Your task to perform on an android device: Search for hotels in San Francisco Image 0: 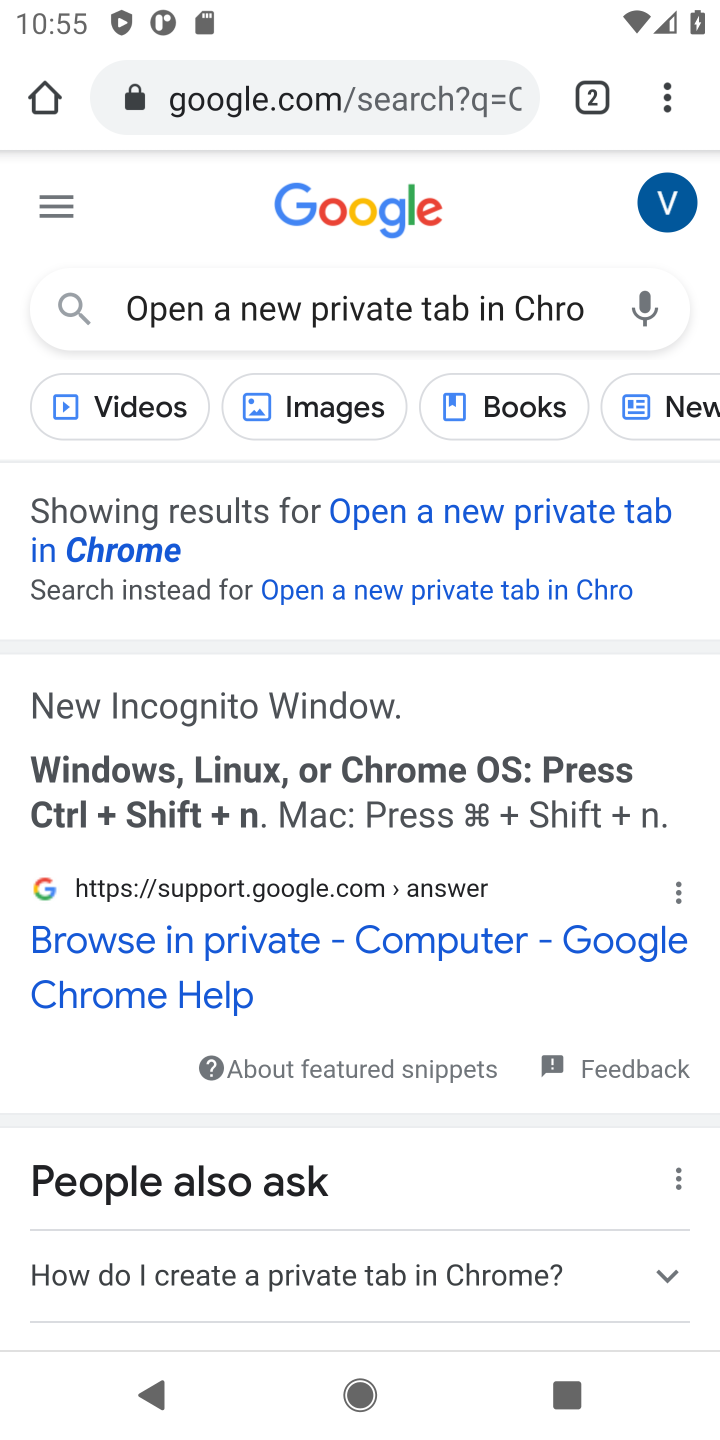
Step 0: click (298, 94)
Your task to perform on an android device: Search for hotels in San Francisco Image 1: 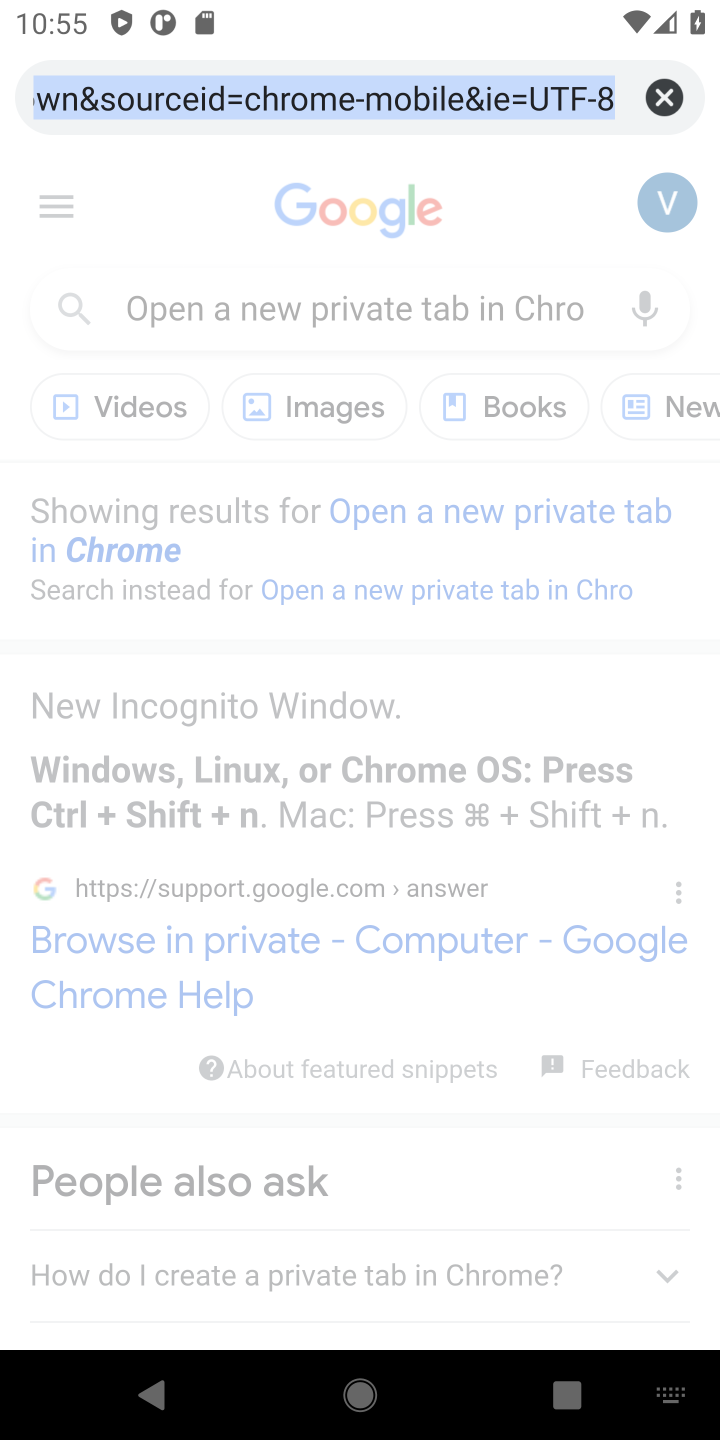
Step 1: click (671, 94)
Your task to perform on an android device: Search for hotels in San Francisco Image 2: 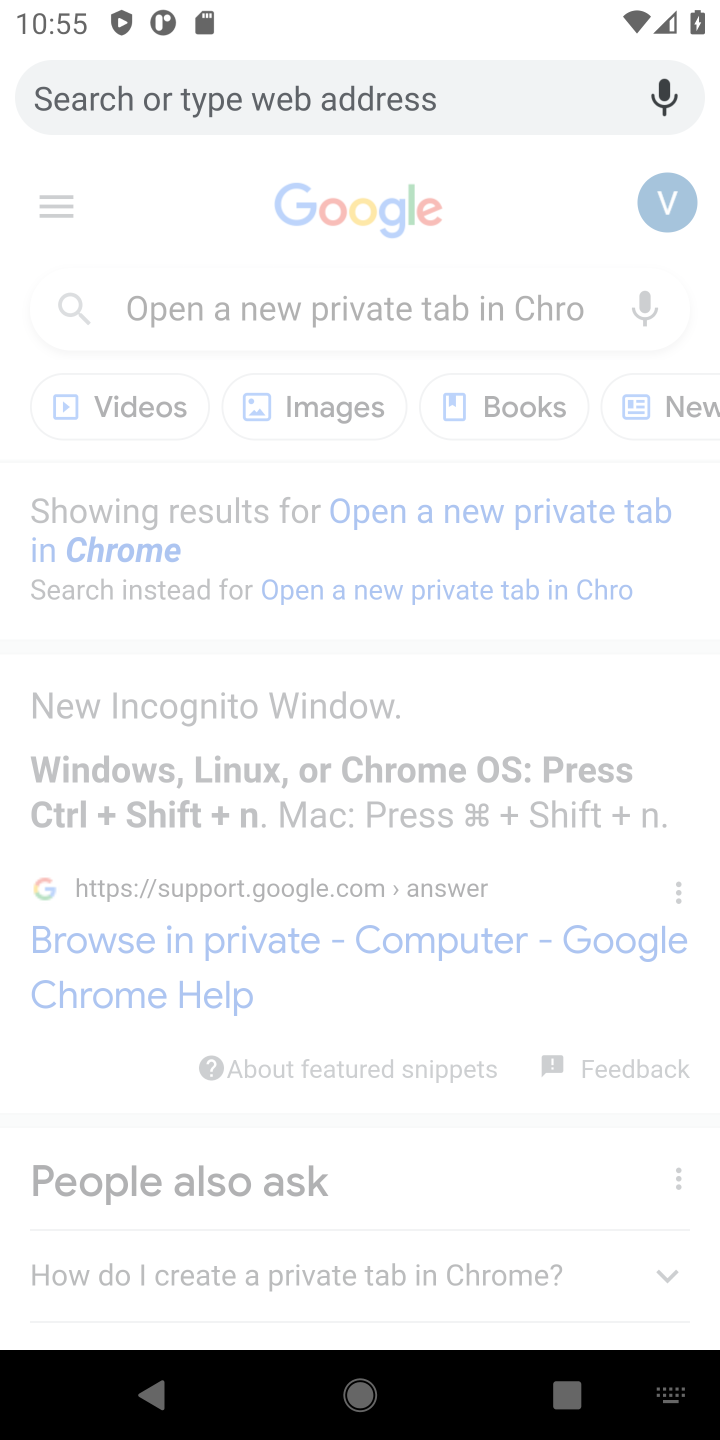
Step 2: type "Search for hotels in San Francisco"
Your task to perform on an android device: Search for hotels in San Francisco Image 3: 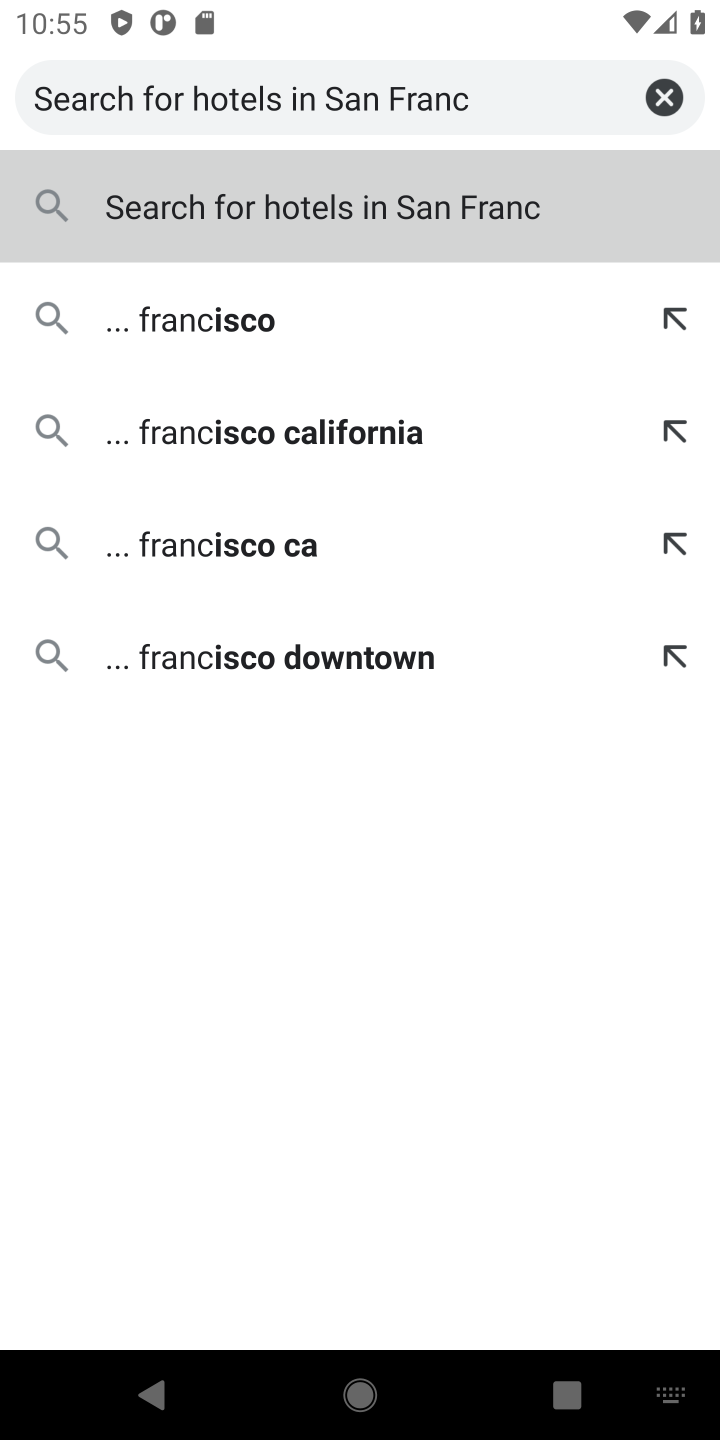
Step 3: click (390, 196)
Your task to perform on an android device: Search for hotels in San Francisco Image 4: 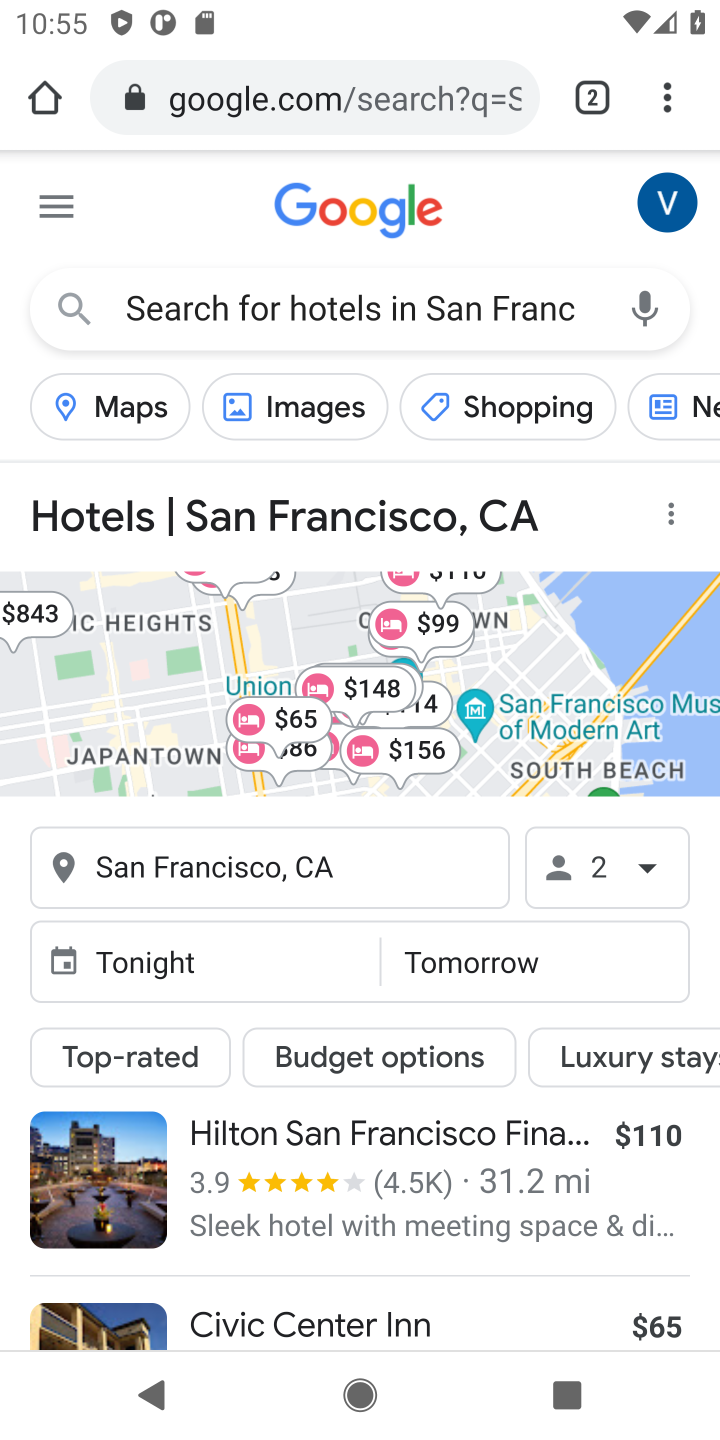
Step 4: task complete